Your task to perform on an android device: Search for sushi restaurants on Maps Image 0: 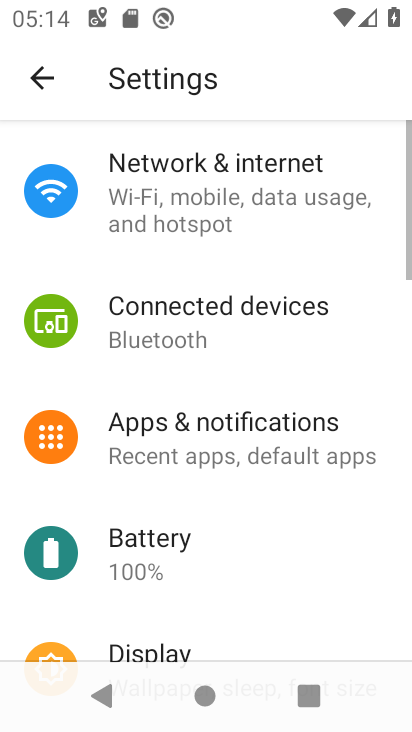
Step 0: press home button
Your task to perform on an android device: Search for sushi restaurants on Maps Image 1: 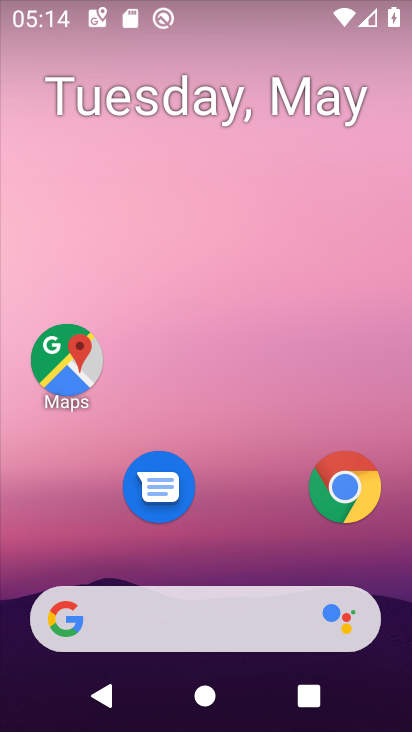
Step 1: click (39, 360)
Your task to perform on an android device: Search for sushi restaurants on Maps Image 2: 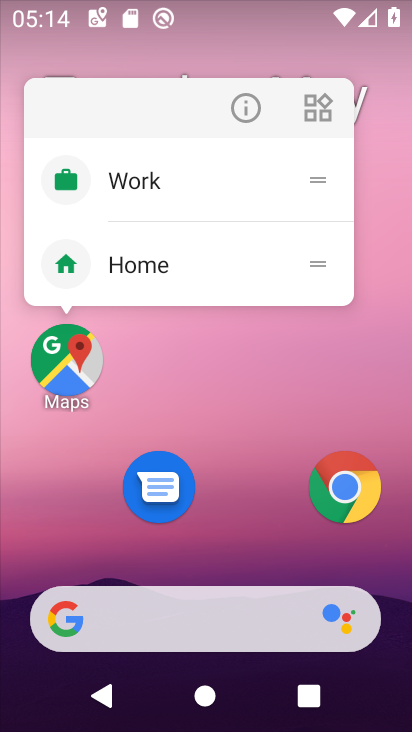
Step 2: click (48, 384)
Your task to perform on an android device: Search for sushi restaurants on Maps Image 3: 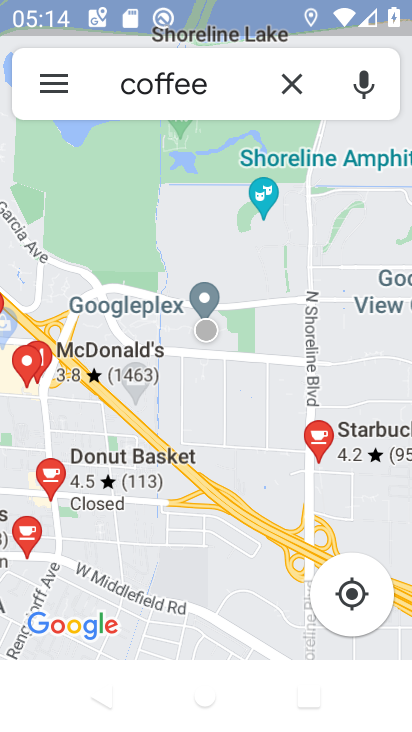
Step 3: click (251, 78)
Your task to perform on an android device: Search for sushi restaurants on Maps Image 4: 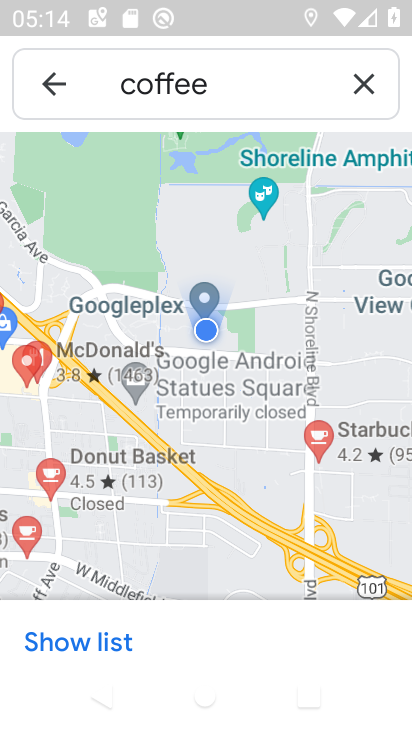
Step 4: click (275, 81)
Your task to perform on an android device: Search for sushi restaurants on Maps Image 5: 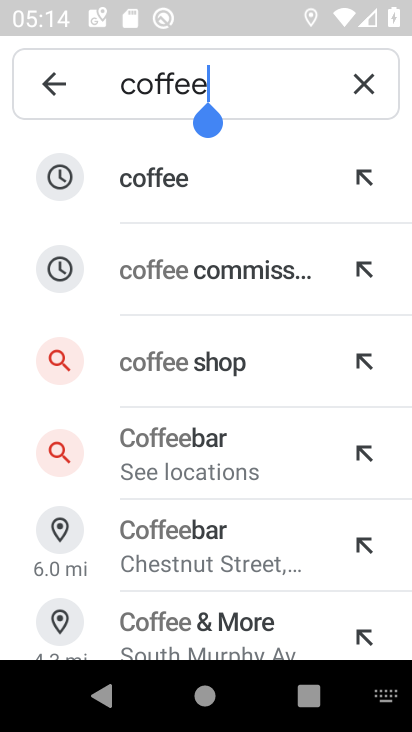
Step 5: click (363, 83)
Your task to perform on an android device: Search for sushi restaurants on Maps Image 6: 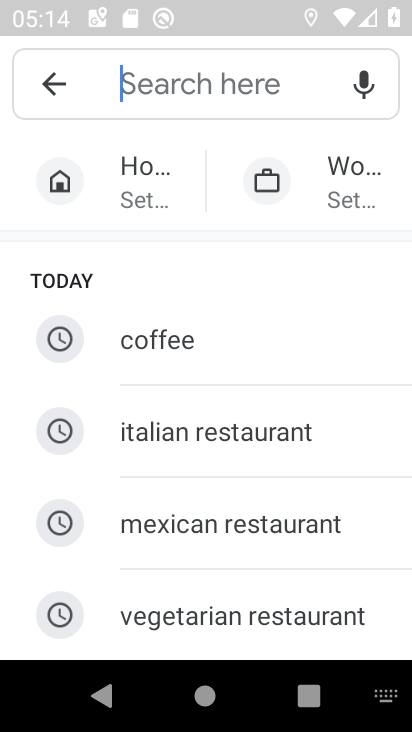
Step 6: drag from (184, 586) to (200, 144)
Your task to perform on an android device: Search for sushi restaurants on Maps Image 7: 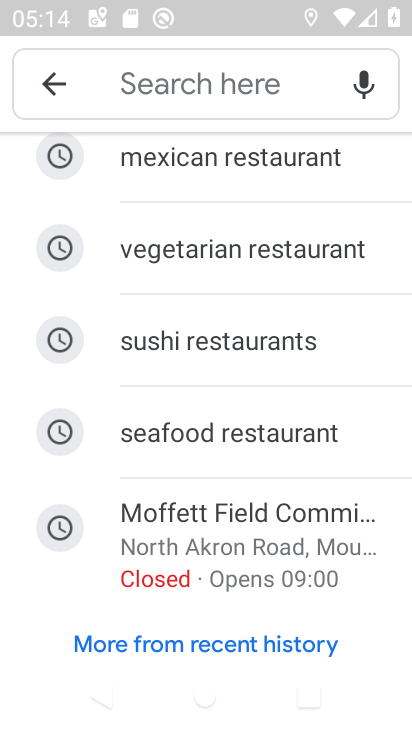
Step 7: click (220, 350)
Your task to perform on an android device: Search for sushi restaurants on Maps Image 8: 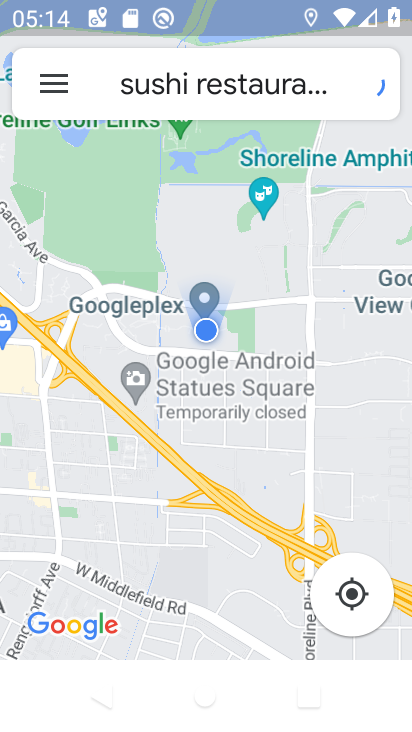
Step 8: task complete